Your task to perform on an android device: Open Amazon Image 0: 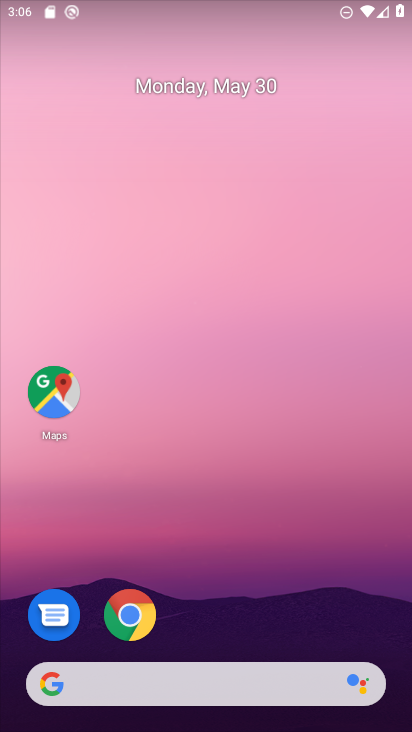
Step 0: click (141, 603)
Your task to perform on an android device: Open Amazon Image 1: 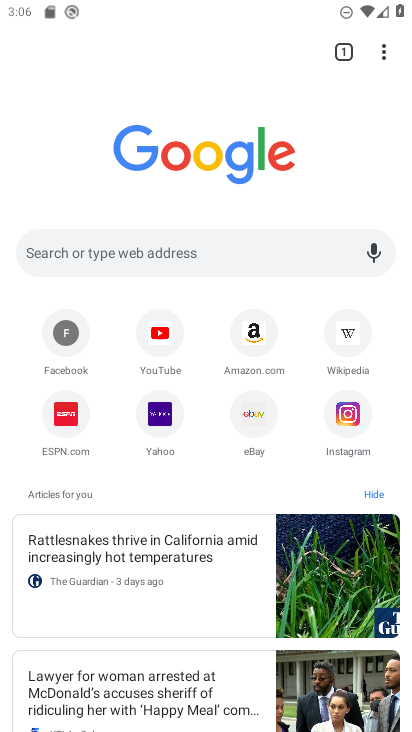
Step 1: click (237, 321)
Your task to perform on an android device: Open Amazon Image 2: 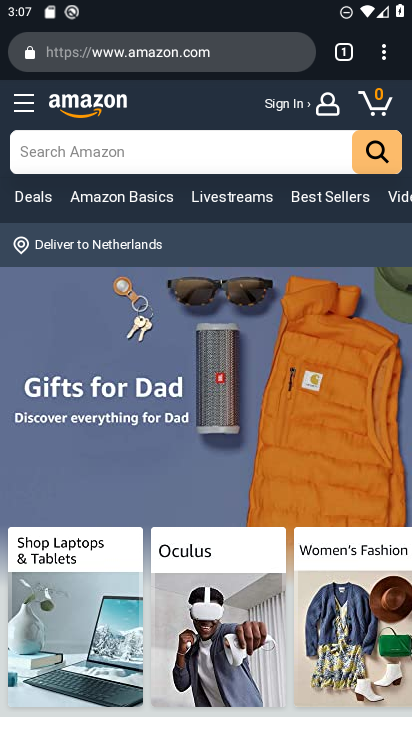
Step 2: task complete